Your task to perform on an android device: open app "Facebook" (install if not already installed) Image 0: 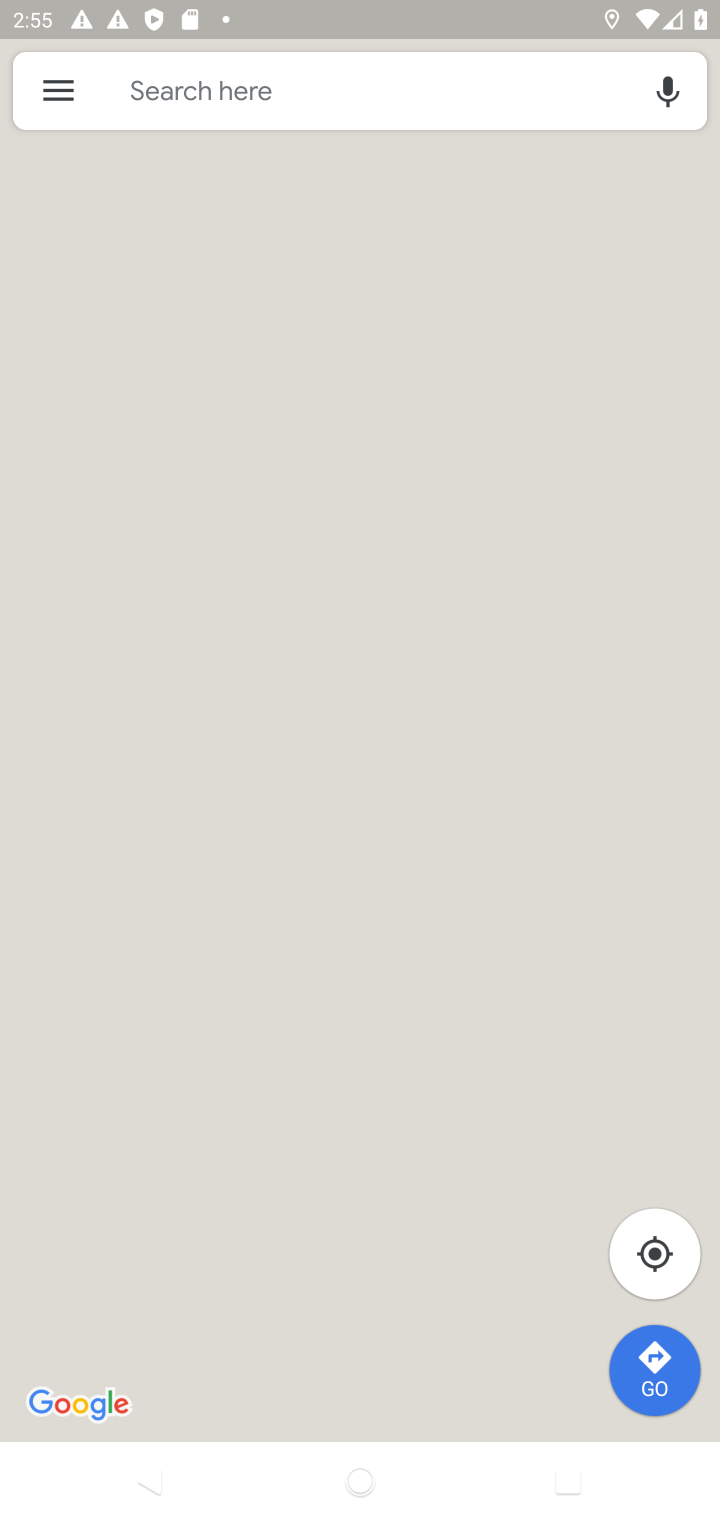
Step 0: press home button
Your task to perform on an android device: open app "Facebook" (install if not already installed) Image 1: 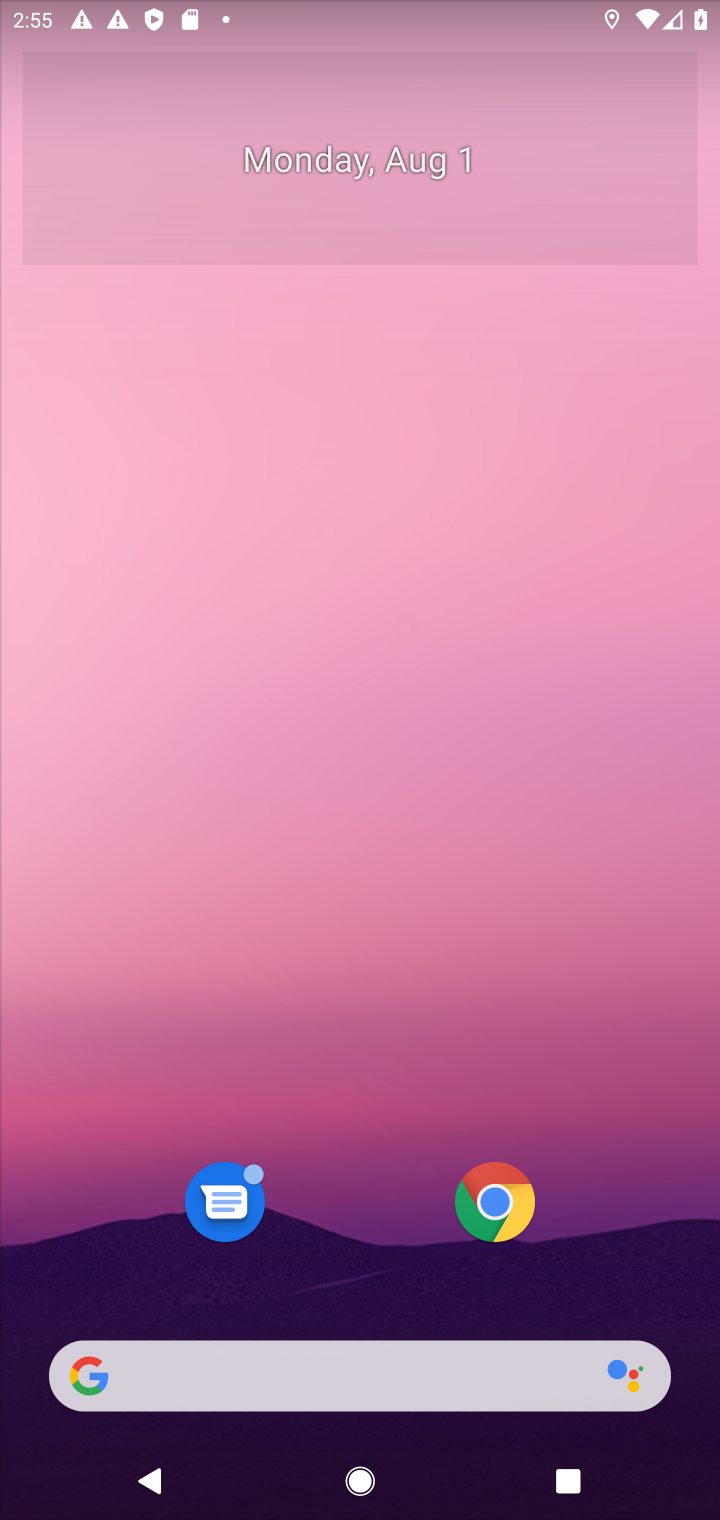
Step 1: drag from (395, 766) to (392, 1)
Your task to perform on an android device: open app "Facebook" (install if not already installed) Image 2: 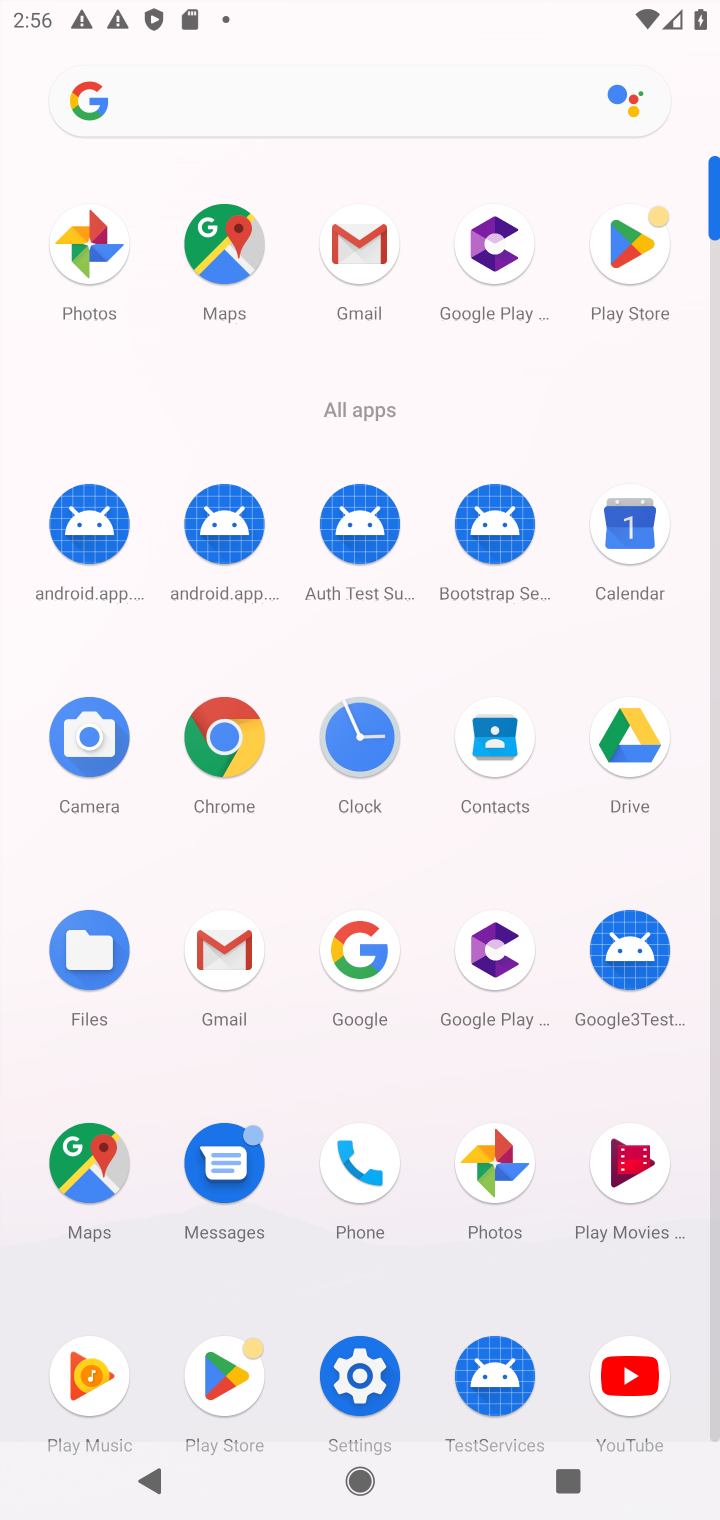
Step 2: click (641, 256)
Your task to perform on an android device: open app "Facebook" (install if not already installed) Image 3: 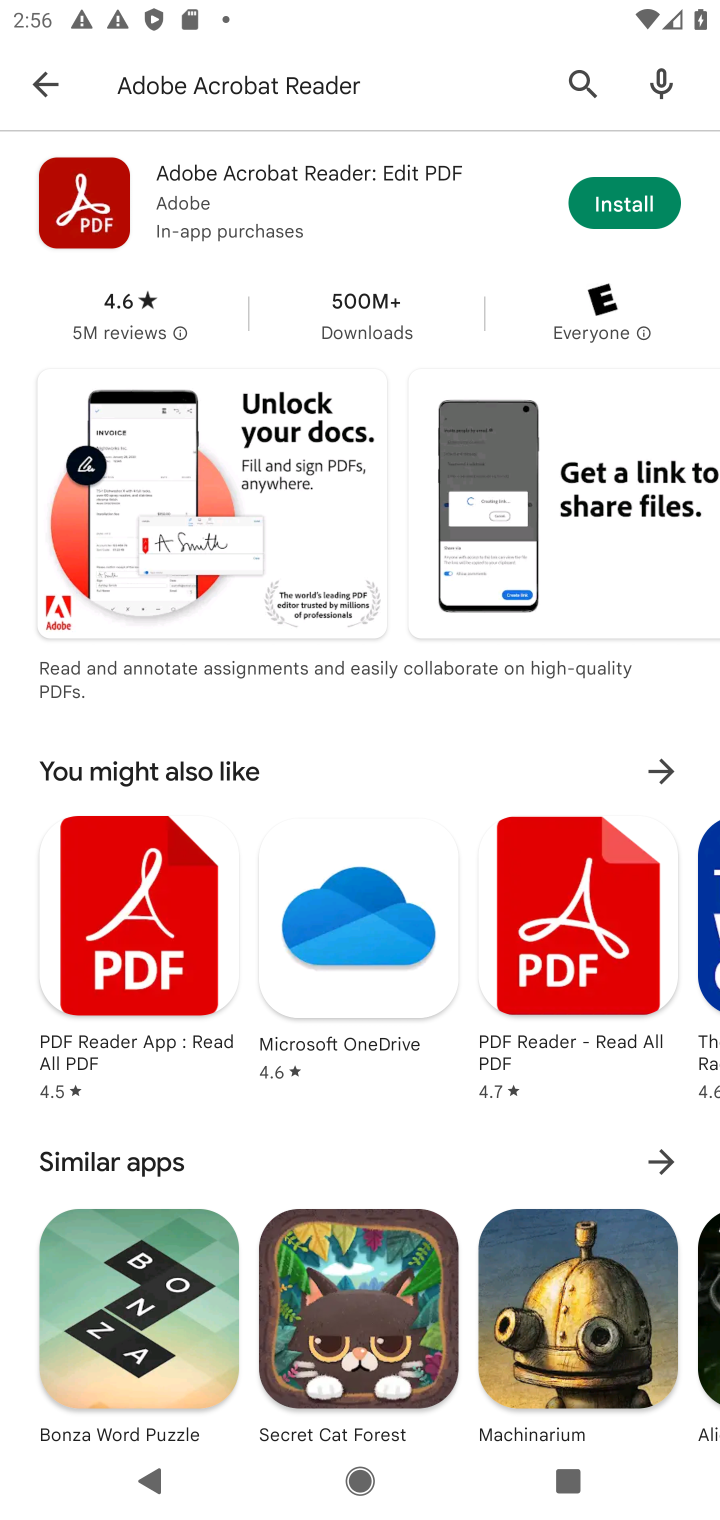
Step 3: click (287, 87)
Your task to perform on an android device: open app "Facebook" (install if not already installed) Image 4: 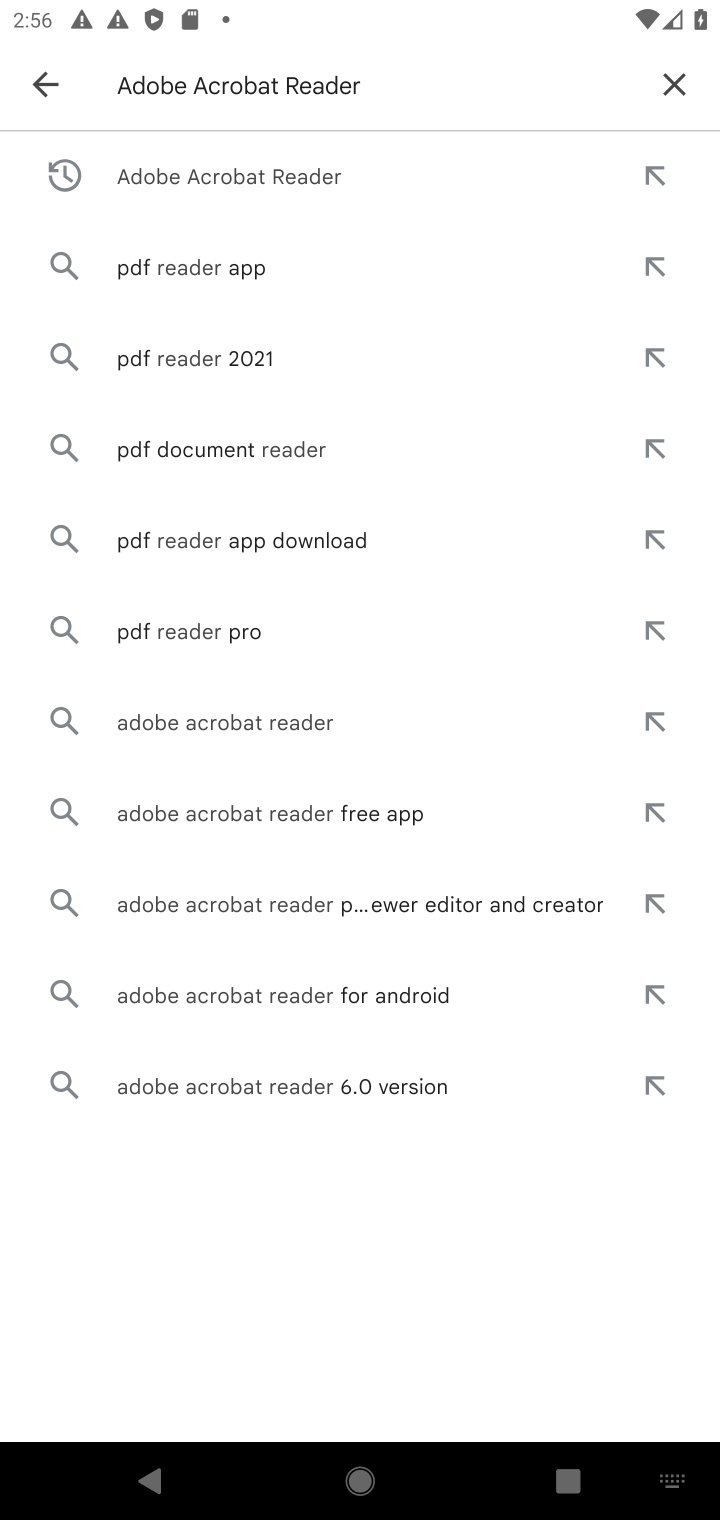
Step 4: click (671, 78)
Your task to perform on an android device: open app "Facebook" (install if not already installed) Image 5: 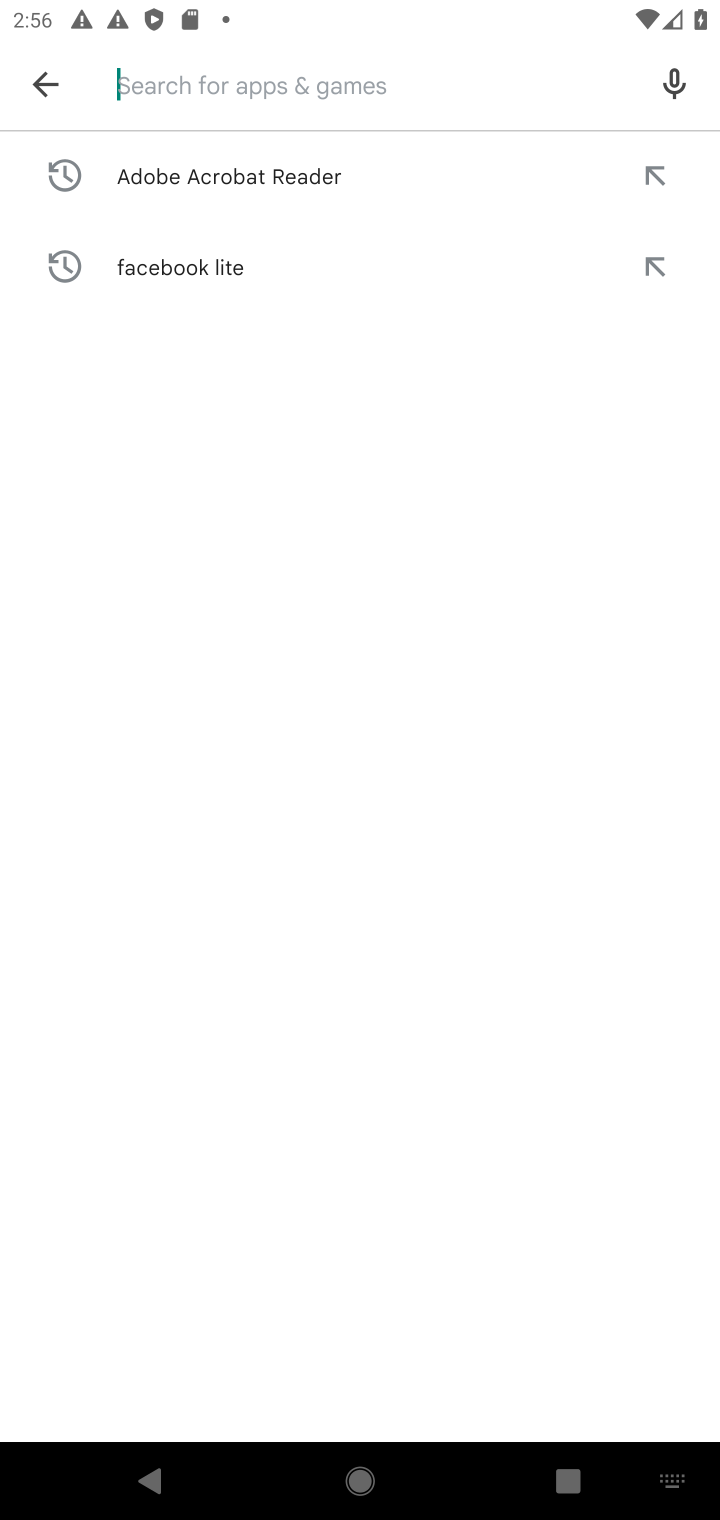
Step 5: type "Facebook"
Your task to perform on an android device: open app "Facebook" (install if not already installed) Image 6: 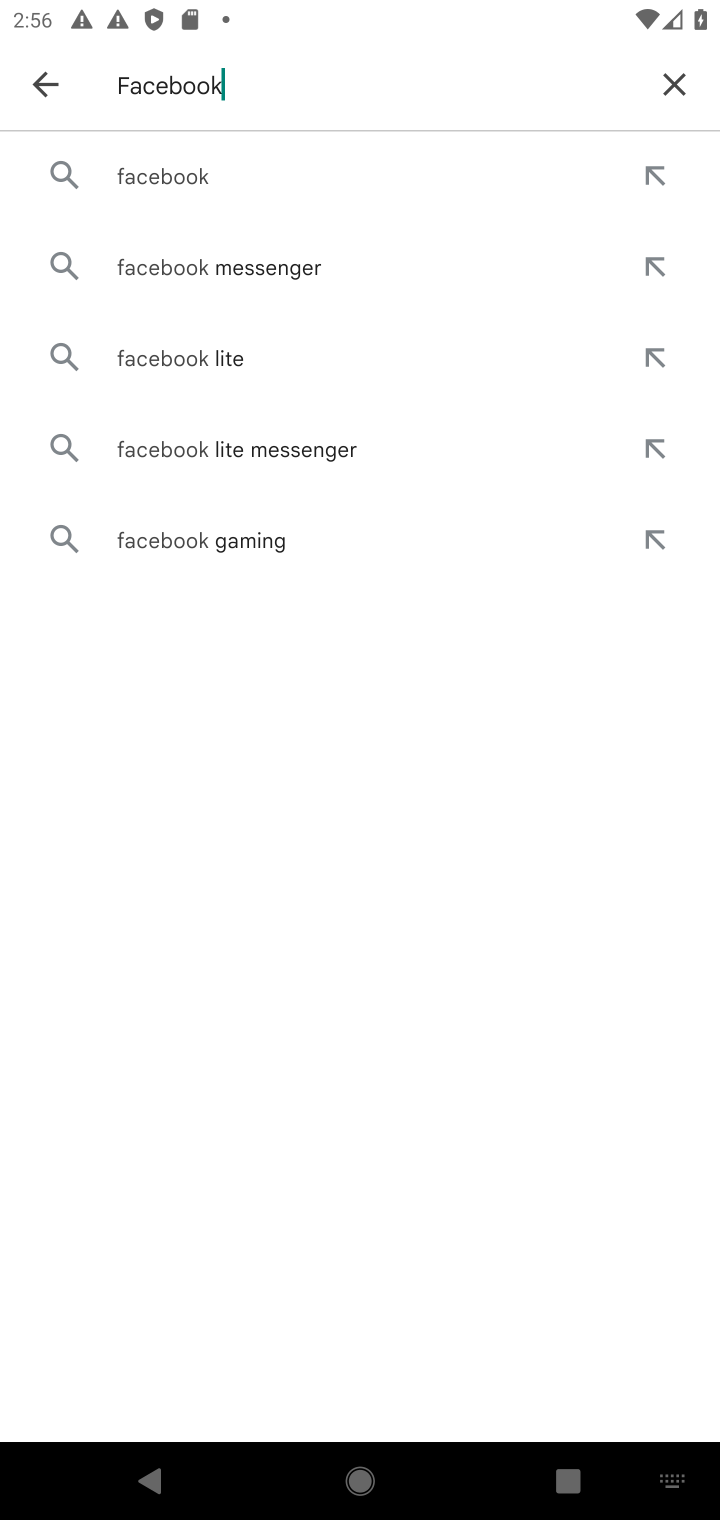
Step 6: press enter
Your task to perform on an android device: open app "Facebook" (install if not already installed) Image 7: 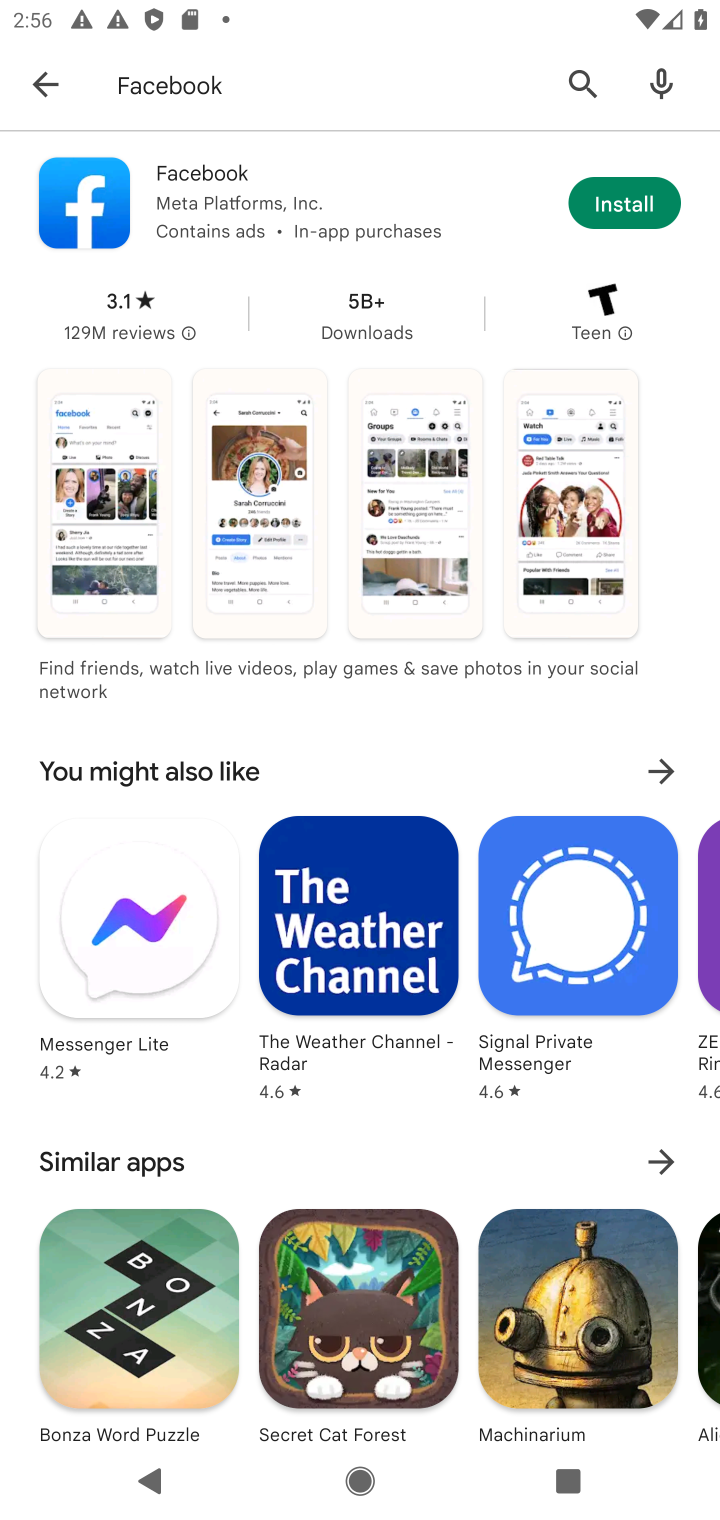
Step 7: click (605, 206)
Your task to perform on an android device: open app "Facebook" (install if not already installed) Image 8: 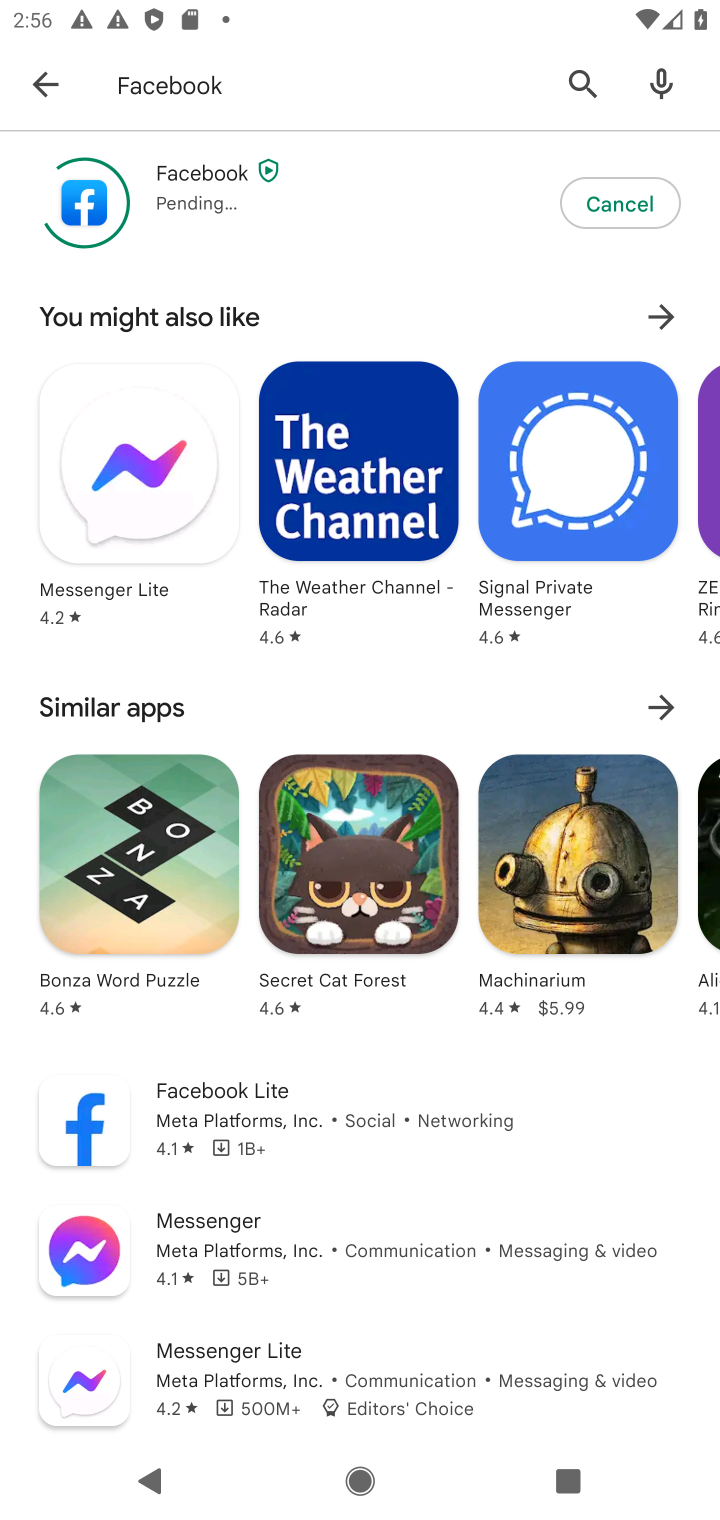
Step 8: click (407, 184)
Your task to perform on an android device: open app "Facebook" (install if not already installed) Image 9: 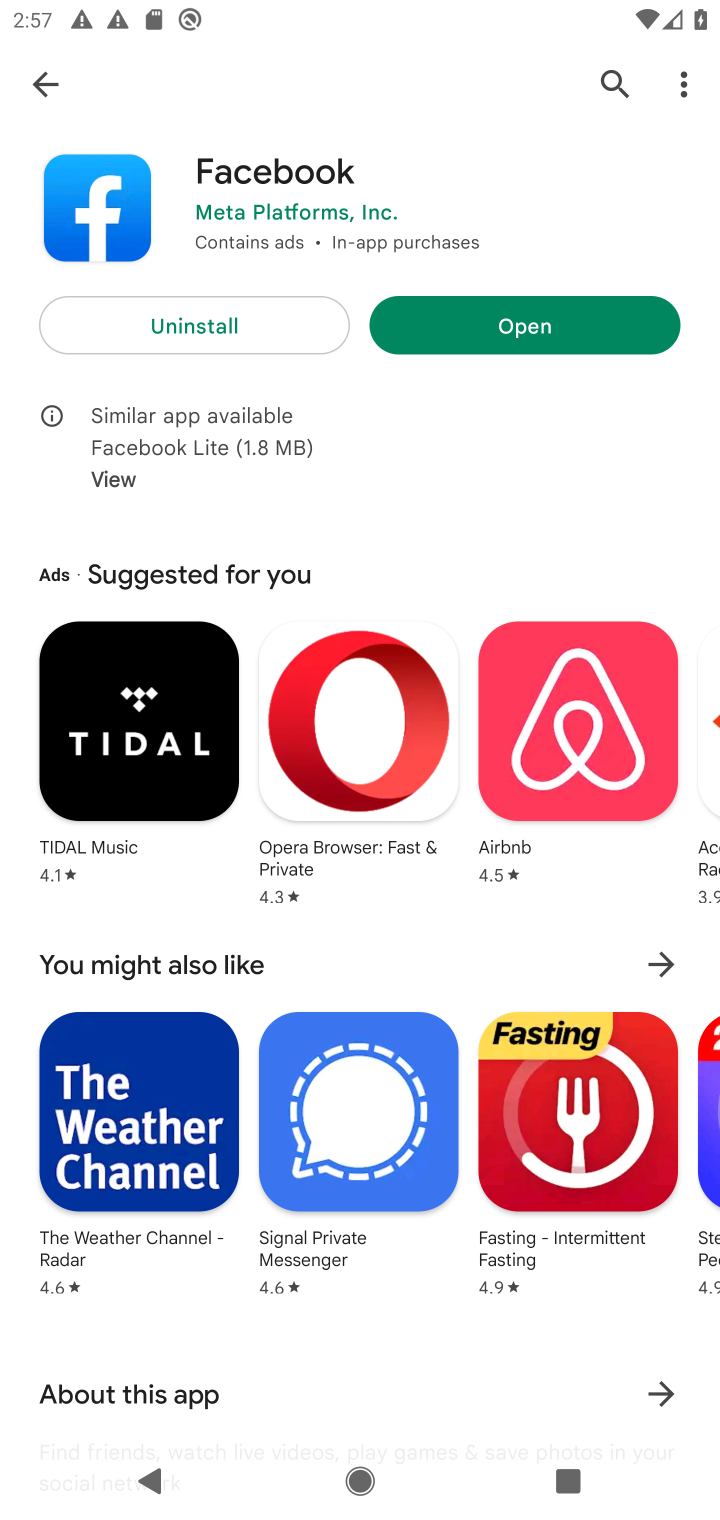
Step 9: click (551, 320)
Your task to perform on an android device: open app "Facebook" (install if not already installed) Image 10: 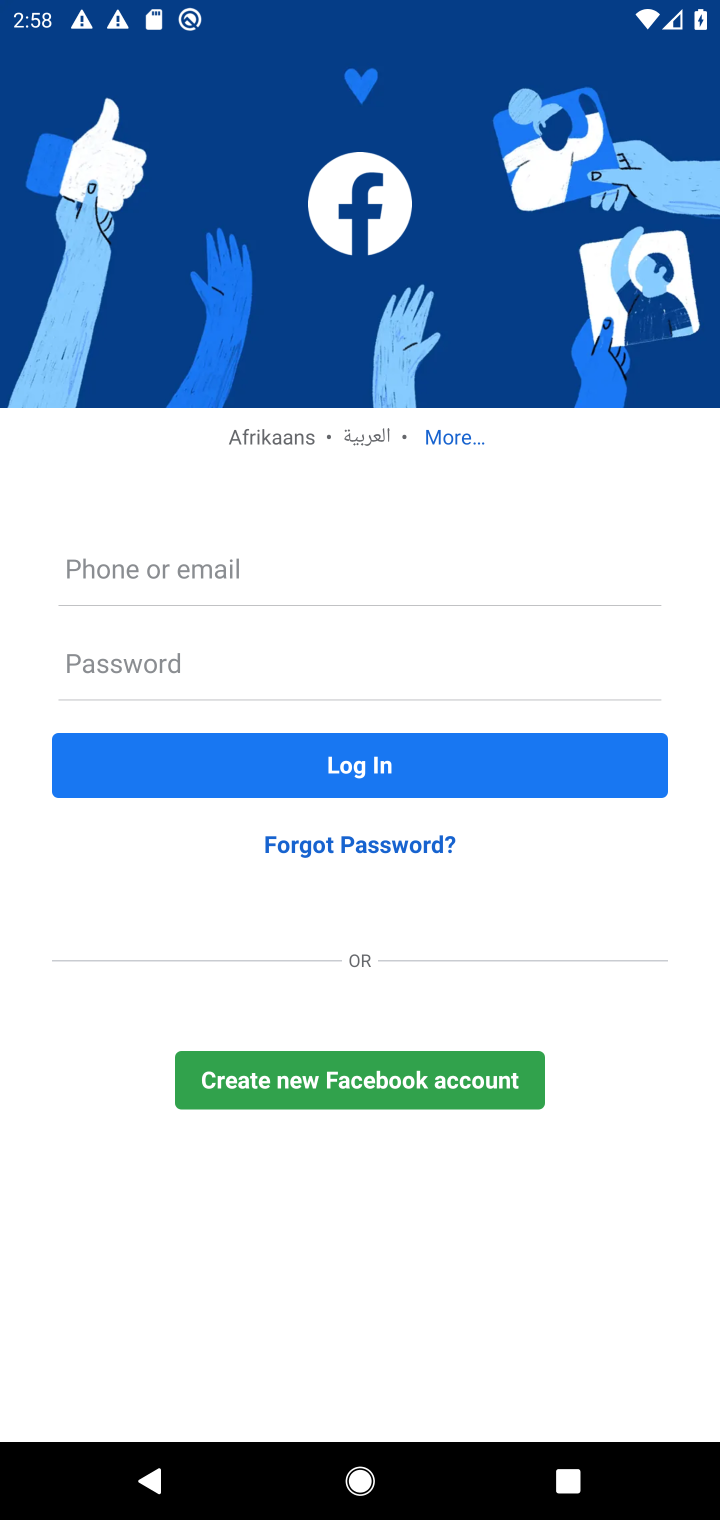
Step 10: task complete